Your task to perform on an android device: open chrome privacy settings Image 0: 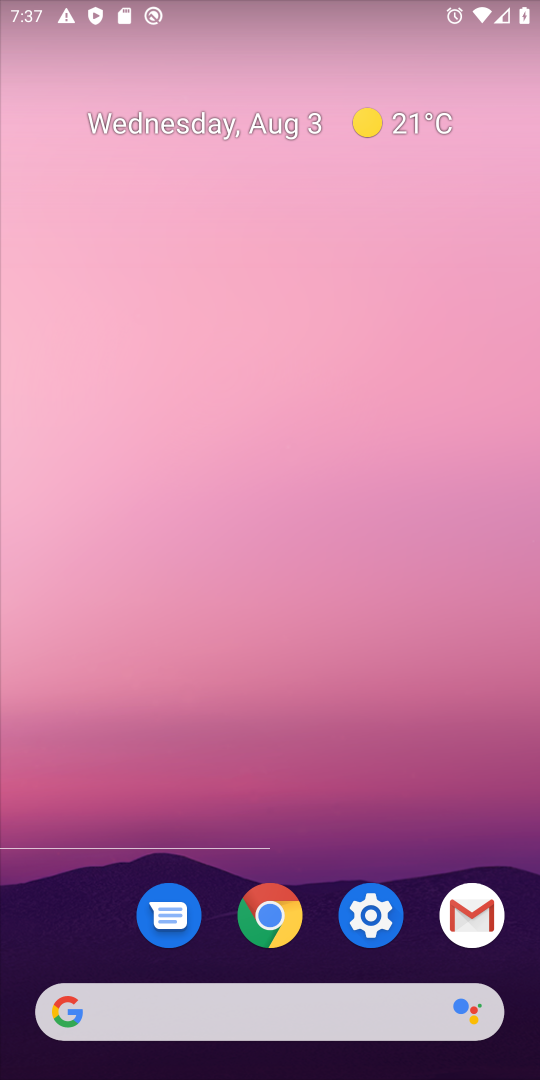
Step 0: press home button
Your task to perform on an android device: open chrome privacy settings Image 1: 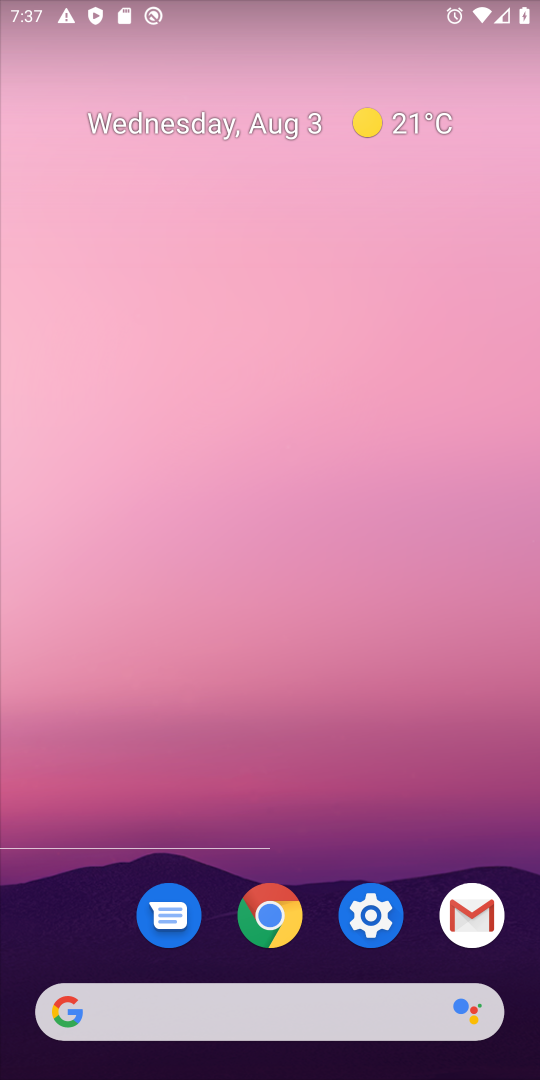
Step 1: drag from (272, 1029) to (294, 327)
Your task to perform on an android device: open chrome privacy settings Image 2: 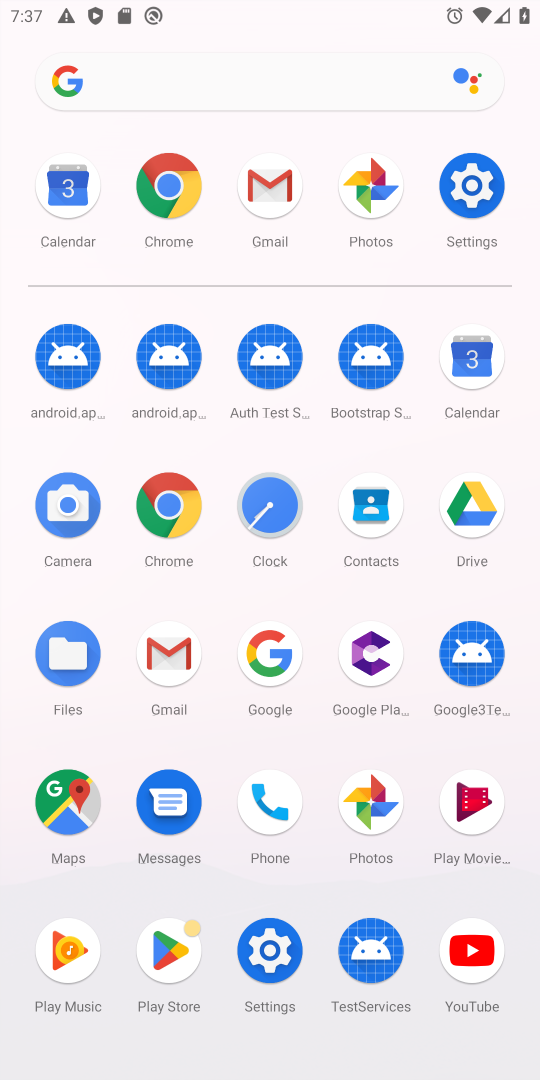
Step 2: click (164, 517)
Your task to perform on an android device: open chrome privacy settings Image 3: 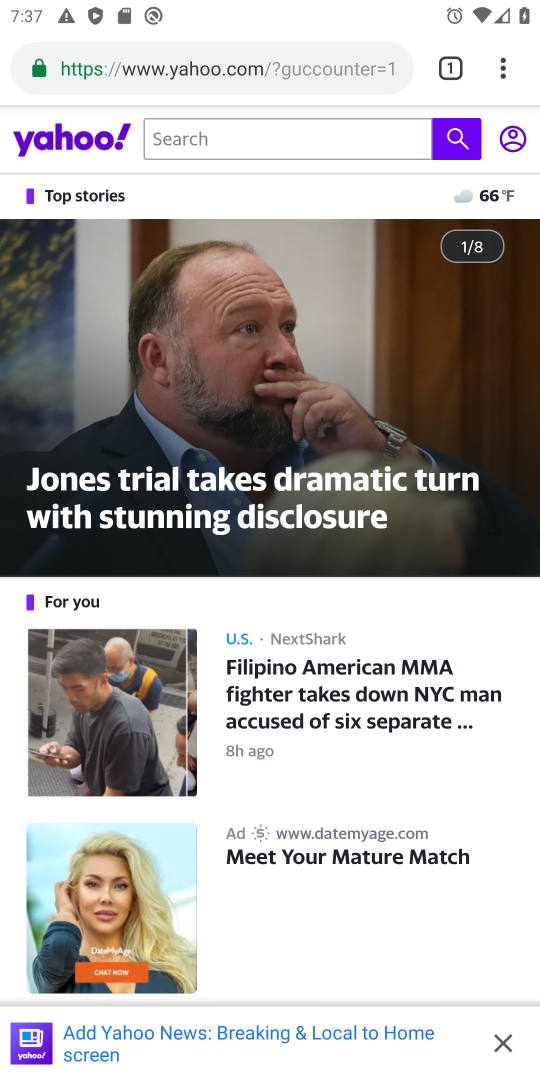
Step 3: click (498, 72)
Your task to perform on an android device: open chrome privacy settings Image 4: 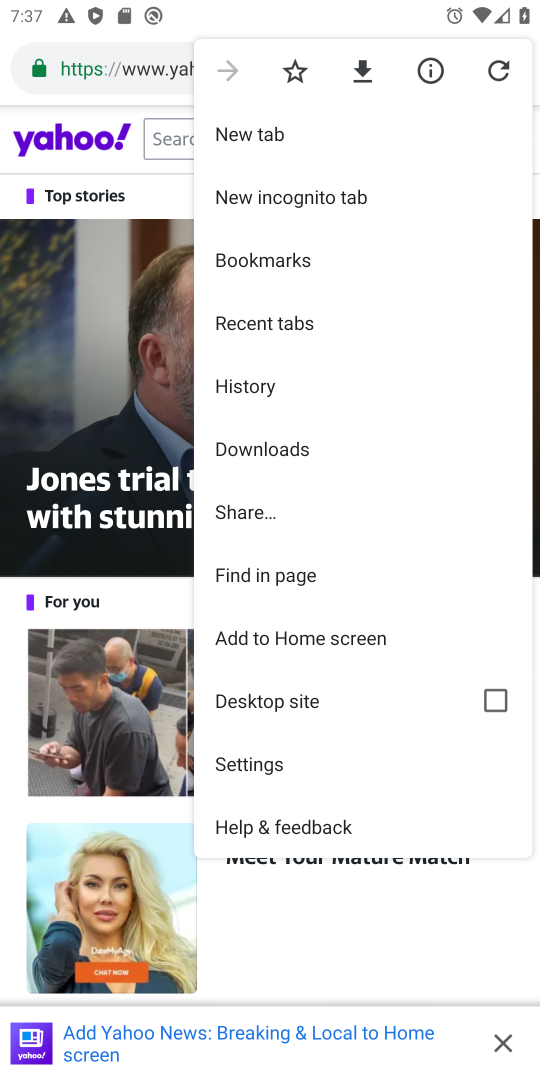
Step 4: click (267, 763)
Your task to perform on an android device: open chrome privacy settings Image 5: 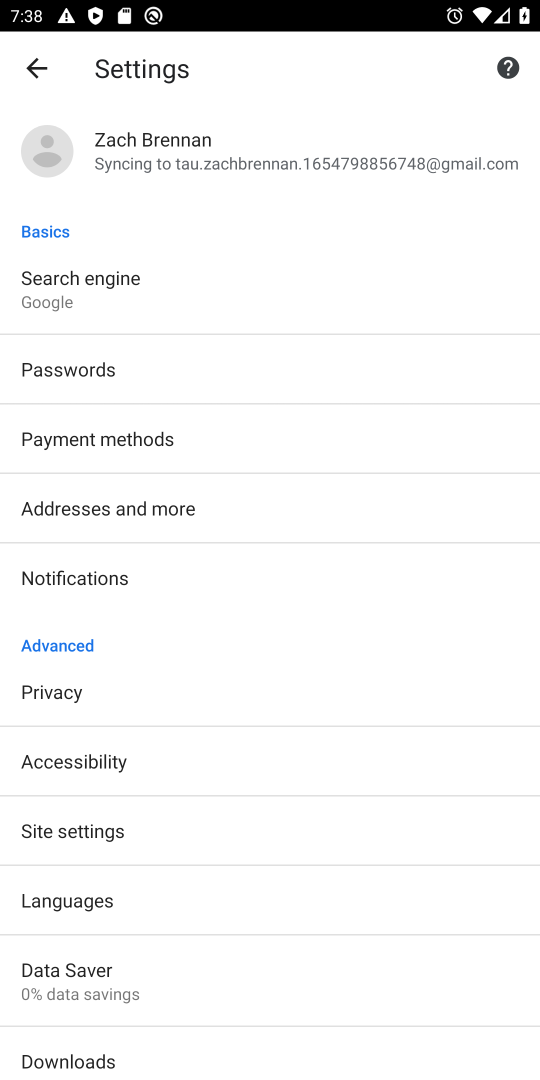
Step 5: click (35, 693)
Your task to perform on an android device: open chrome privacy settings Image 6: 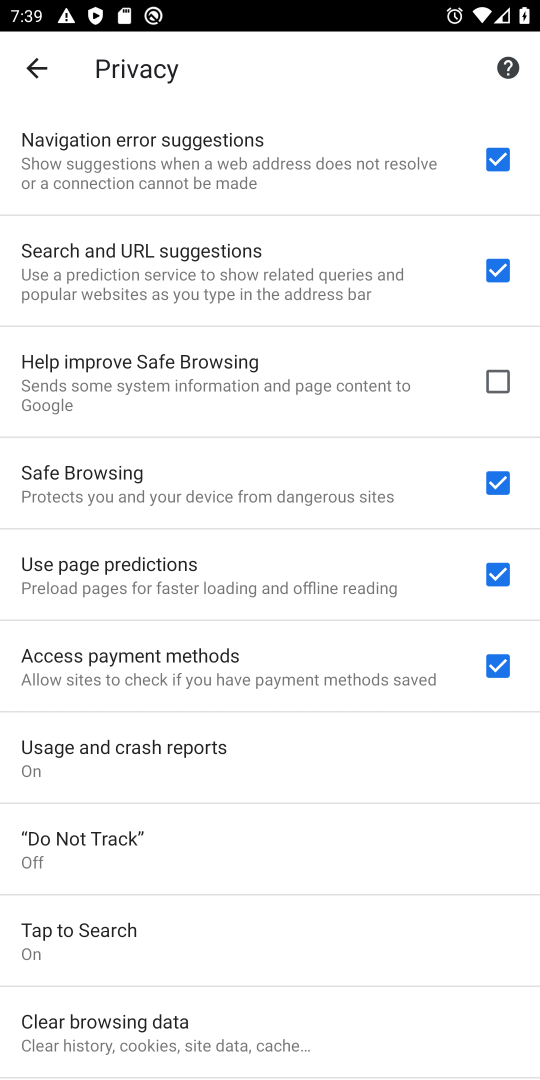
Step 6: task complete